Your task to perform on an android device: turn on data saver in the chrome app Image 0: 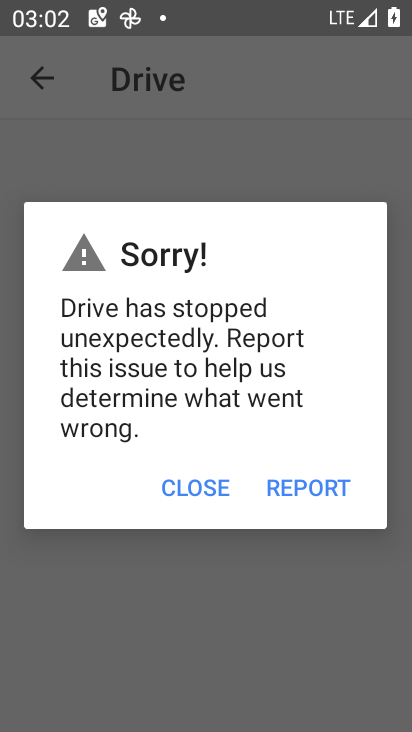
Step 0: click (171, 481)
Your task to perform on an android device: turn on data saver in the chrome app Image 1: 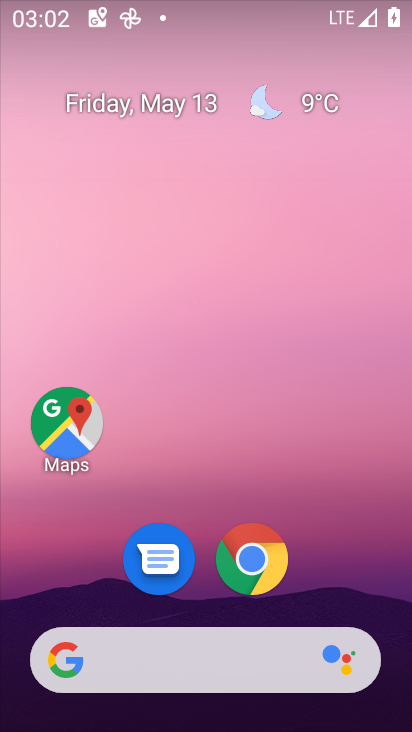
Step 1: click (244, 564)
Your task to perform on an android device: turn on data saver in the chrome app Image 2: 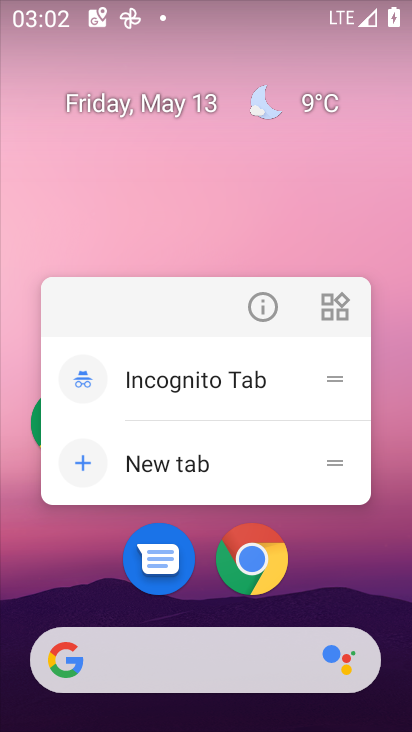
Step 2: click (245, 558)
Your task to perform on an android device: turn on data saver in the chrome app Image 3: 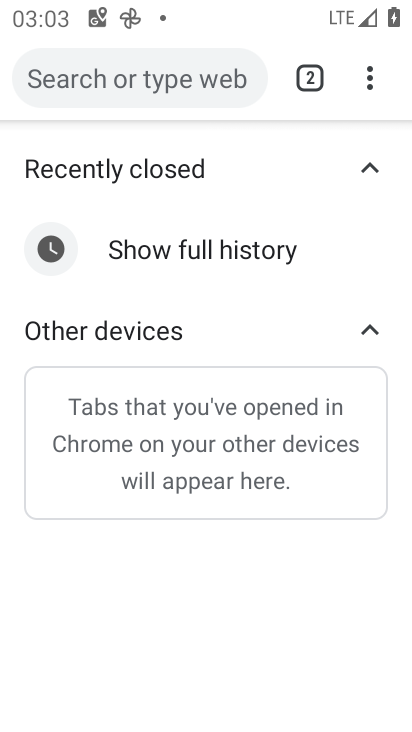
Step 3: click (373, 75)
Your task to perform on an android device: turn on data saver in the chrome app Image 4: 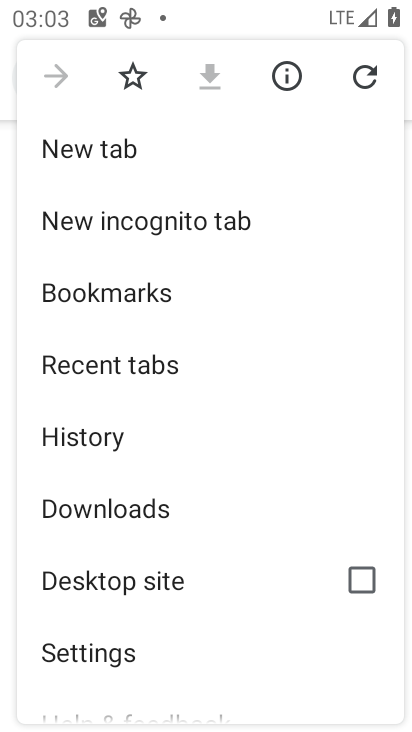
Step 4: drag from (224, 620) to (244, 417)
Your task to perform on an android device: turn on data saver in the chrome app Image 5: 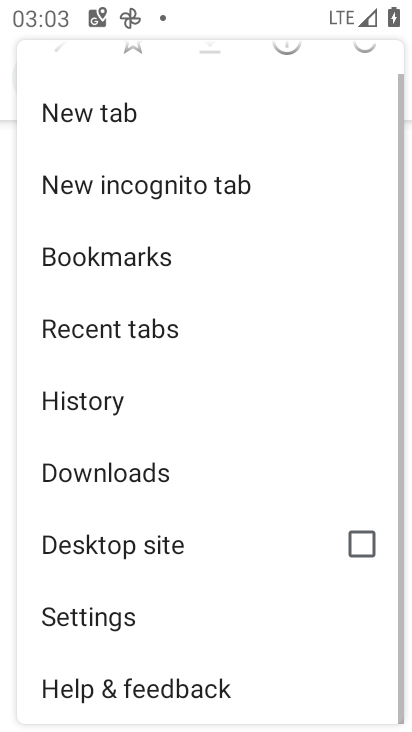
Step 5: click (86, 605)
Your task to perform on an android device: turn on data saver in the chrome app Image 6: 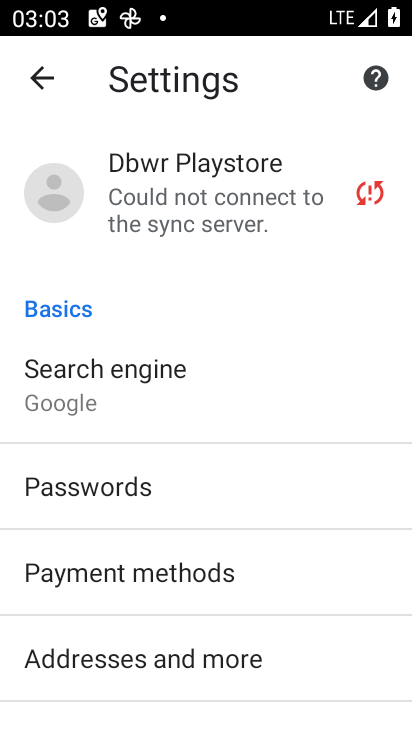
Step 6: drag from (317, 669) to (322, 383)
Your task to perform on an android device: turn on data saver in the chrome app Image 7: 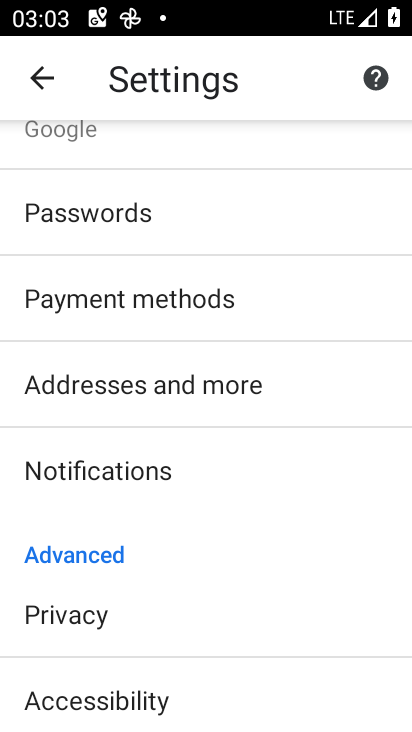
Step 7: drag from (241, 656) to (266, 417)
Your task to perform on an android device: turn on data saver in the chrome app Image 8: 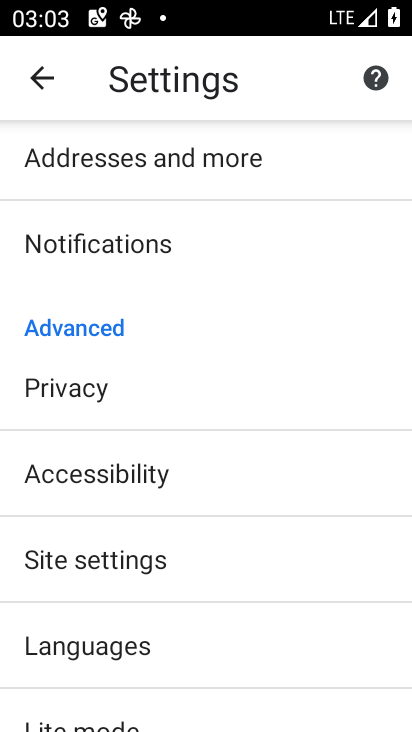
Step 8: drag from (230, 681) to (244, 525)
Your task to perform on an android device: turn on data saver in the chrome app Image 9: 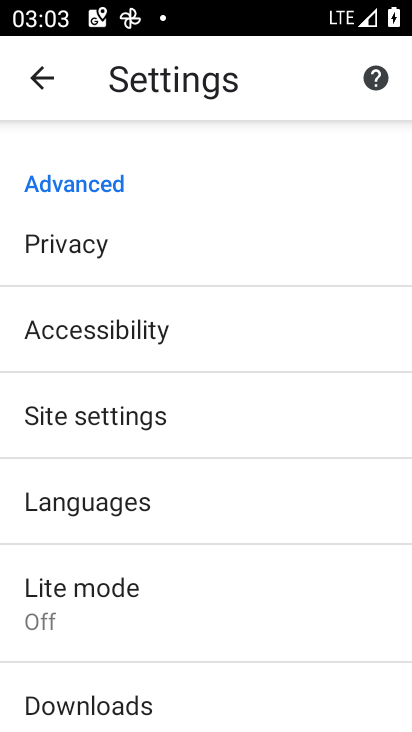
Step 9: click (110, 593)
Your task to perform on an android device: turn on data saver in the chrome app Image 10: 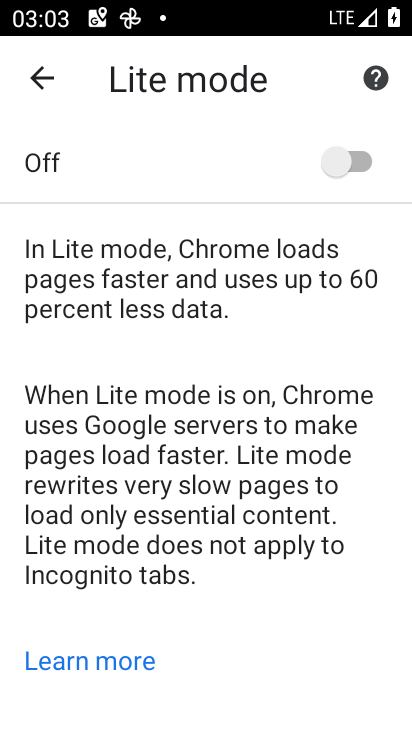
Step 10: click (370, 154)
Your task to perform on an android device: turn on data saver in the chrome app Image 11: 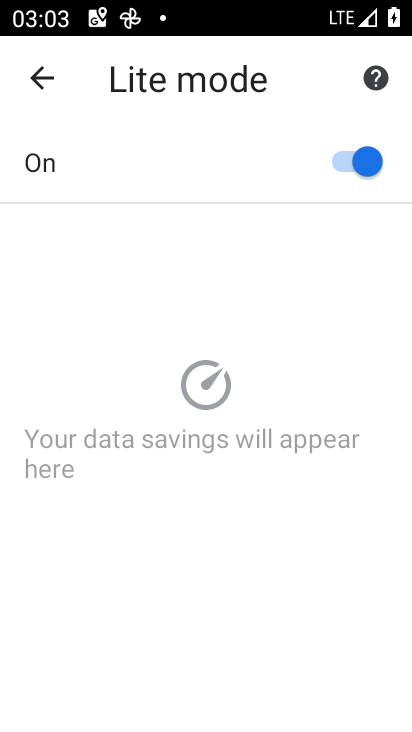
Step 11: task complete